Your task to perform on an android device: See recent photos Image 0: 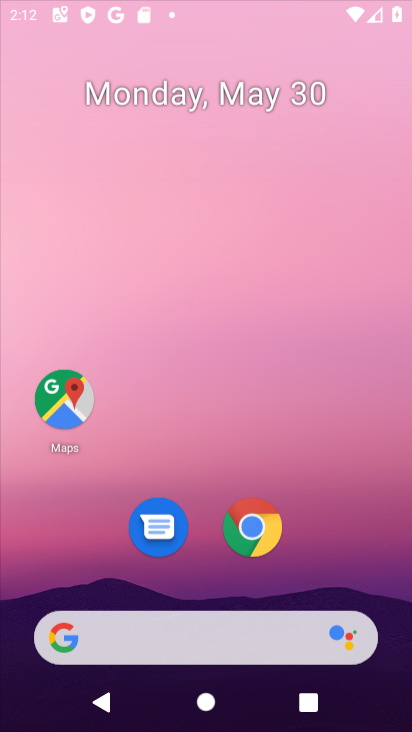
Step 0: drag from (234, 526) to (177, 34)
Your task to perform on an android device: See recent photos Image 1: 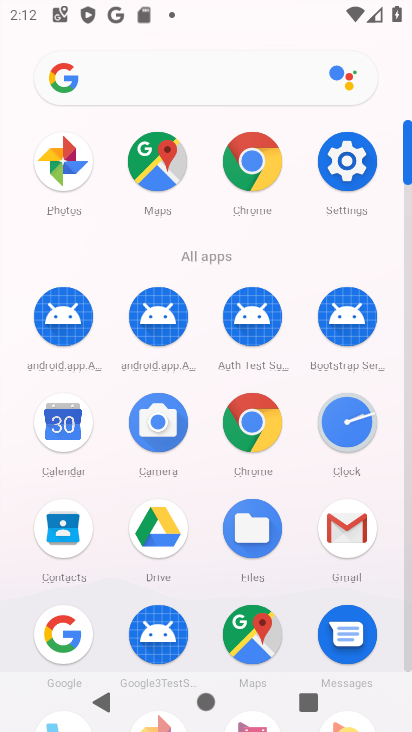
Step 1: click (53, 160)
Your task to perform on an android device: See recent photos Image 2: 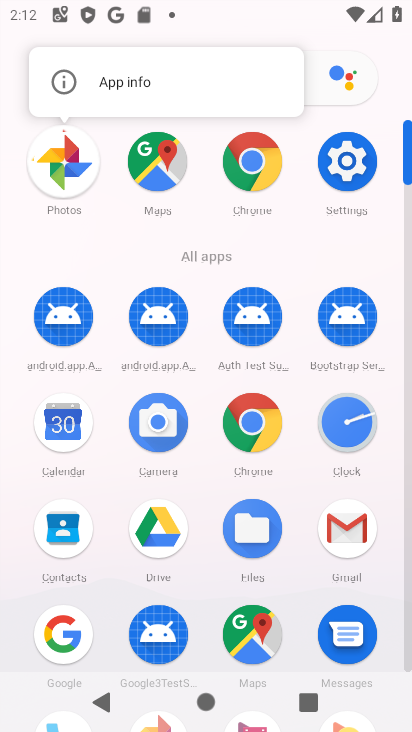
Step 2: click (53, 160)
Your task to perform on an android device: See recent photos Image 3: 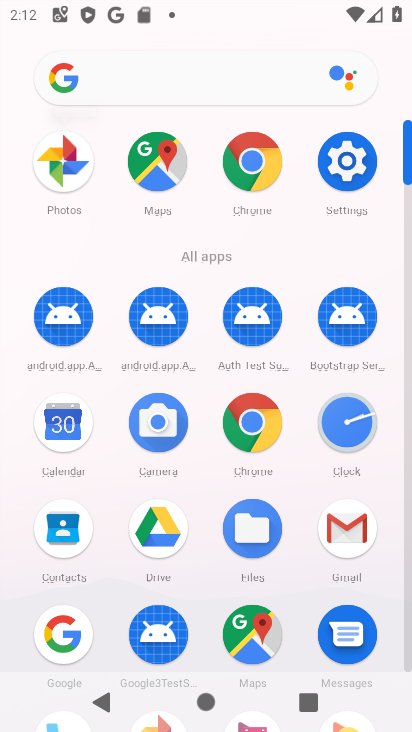
Step 3: click (53, 160)
Your task to perform on an android device: See recent photos Image 4: 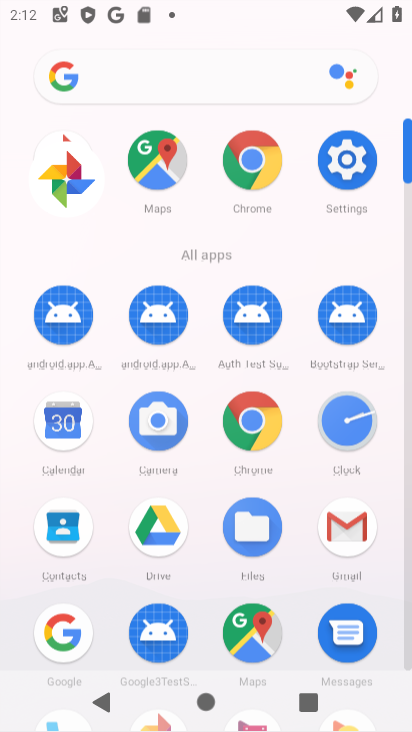
Step 4: click (54, 159)
Your task to perform on an android device: See recent photos Image 5: 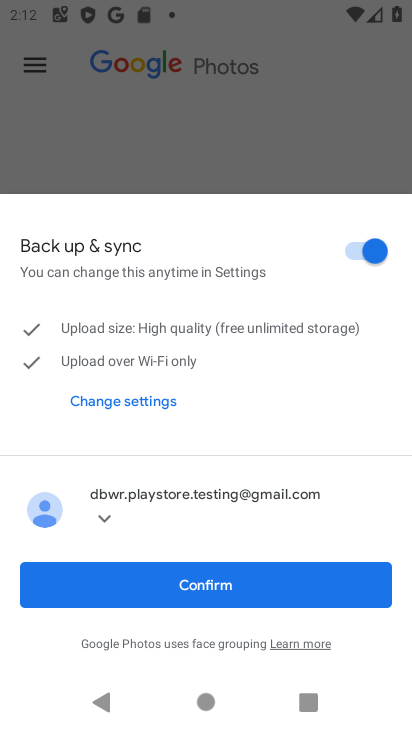
Step 5: click (228, 580)
Your task to perform on an android device: See recent photos Image 6: 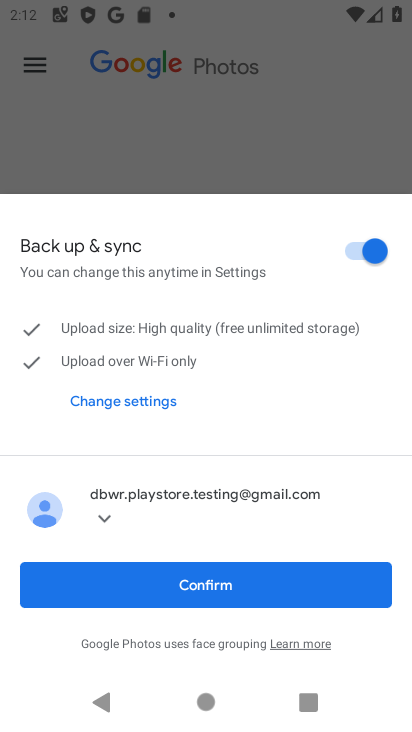
Step 6: click (228, 580)
Your task to perform on an android device: See recent photos Image 7: 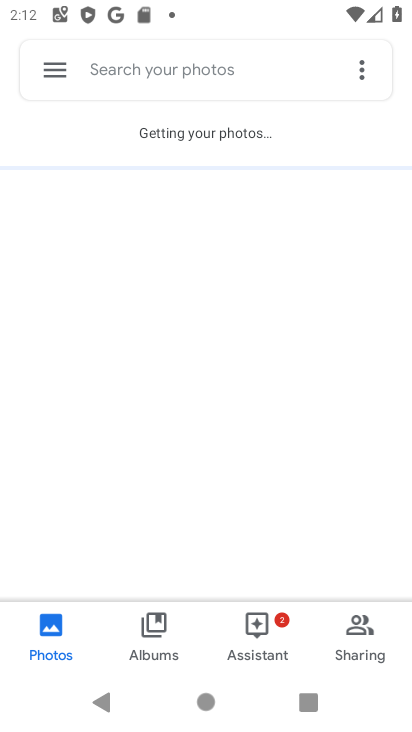
Step 7: task complete